Your task to perform on an android device: turn pop-ups off in chrome Image 0: 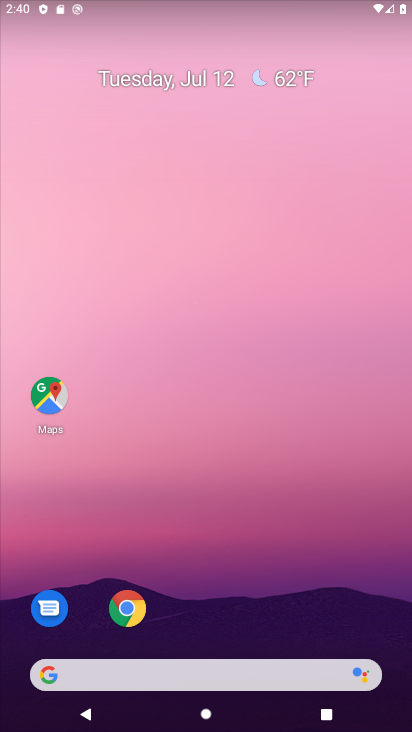
Step 0: click (125, 608)
Your task to perform on an android device: turn pop-ups off in chrome Image 1: 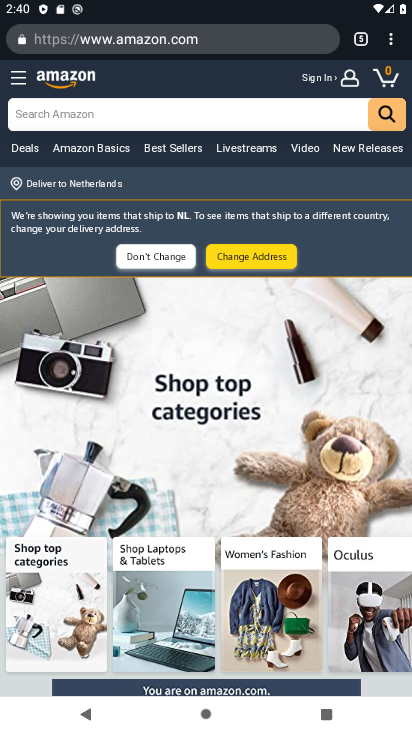
Step 1: drag from (389, 38) to (291, 472)
Your task to perform on an android device: turn pop-ups off in chrome Image 2: 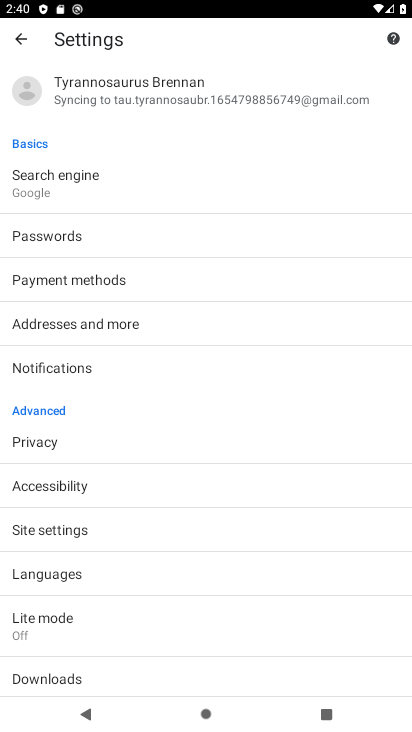
Step 2: click (59, 531)
Your task to perform on an android device: turn pop-ups off in chrome Image 3: 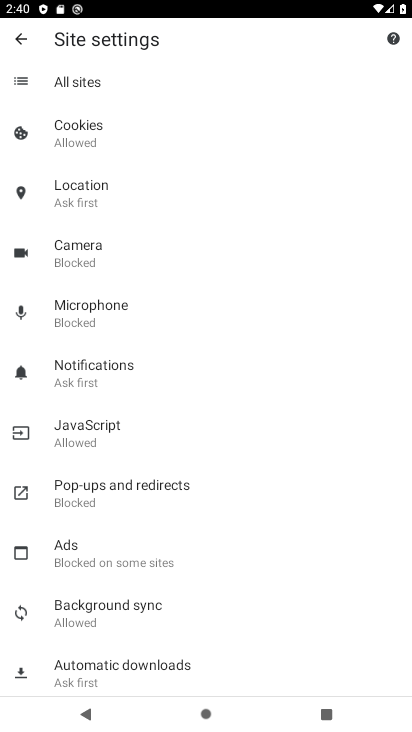
Step 3: click (125, 493)
Your task to perform on an android device: turn pop-ups off in chrome Image 4: 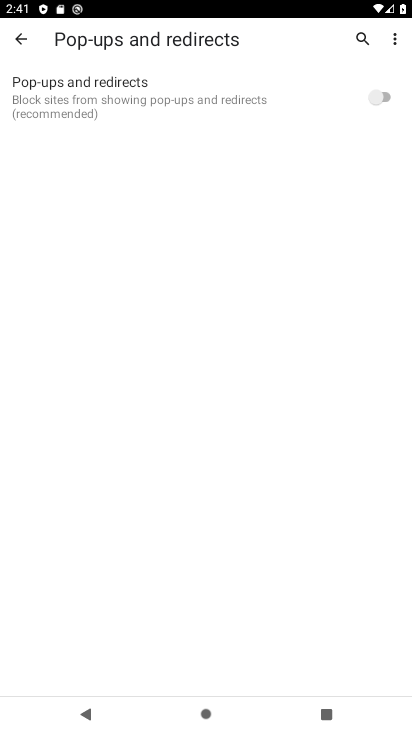
Step 4: task complete